Your task to perform on an android device: Show me recent news Image 0: 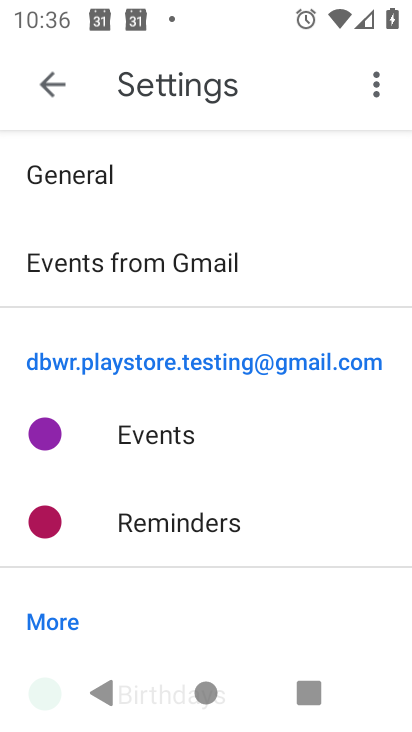
Step 0: press home button
Your task to perform on an android device: Show me recent news Image 1: 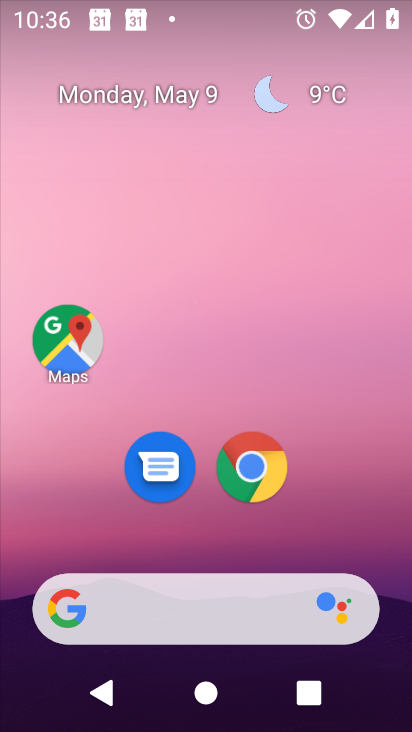
Step 1: drag from (13, 272) to (378, 396)
Your task to perform on an android device: Show me recent news Image 2: 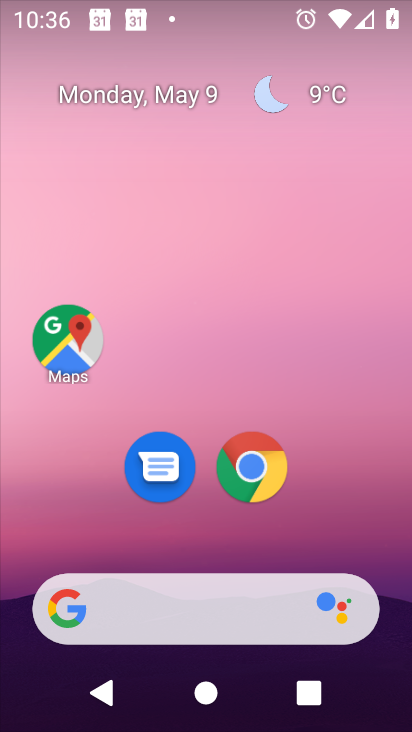
Step 2: drag from (2, 234) to (272, 720)
Your task to perform on an android device: Show me recent news Image 3: 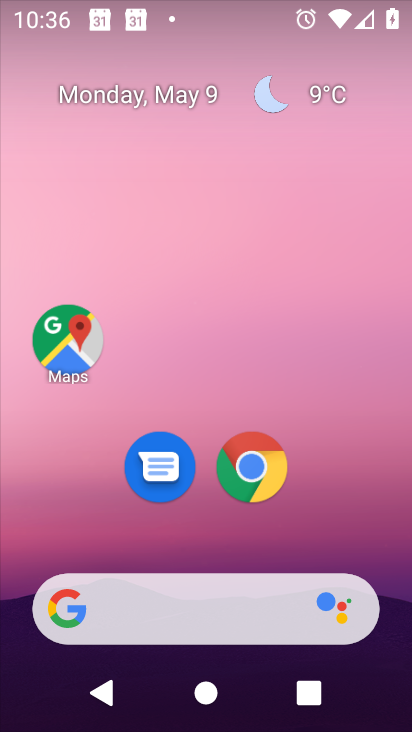
Step 3: drag from (9, 413) to (409, 453)
Your task to perform on an android device: Show me recent news Image 4: 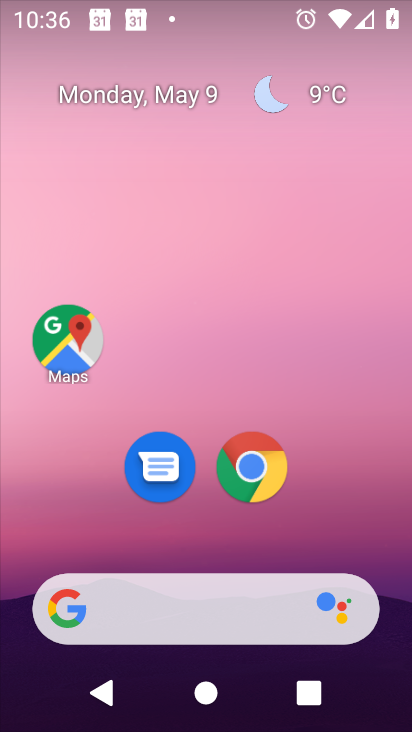
Step 4: drag from (31, 215) to (385, 359)
Your task to perform on an android device: Show me recent news Image 5: 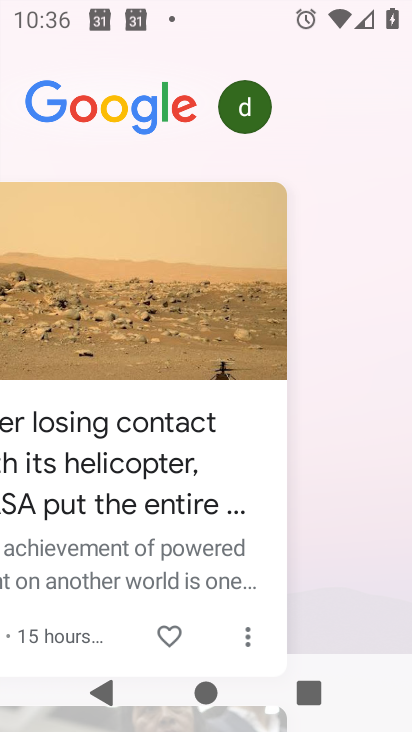
Step 5: drag from (68, 384) to (304, 390)
Your task to perform on an android device: Show me recent news Image 6: 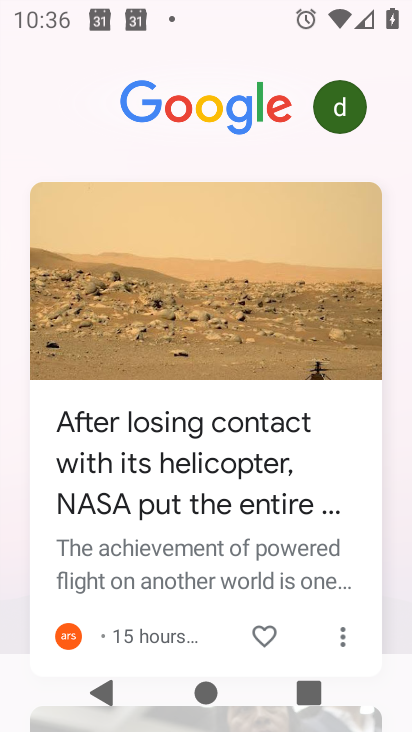
Step 6: drag from (195, 270) to (158, 715)
Your task to perform on an android device: Show me recent news Image 7: 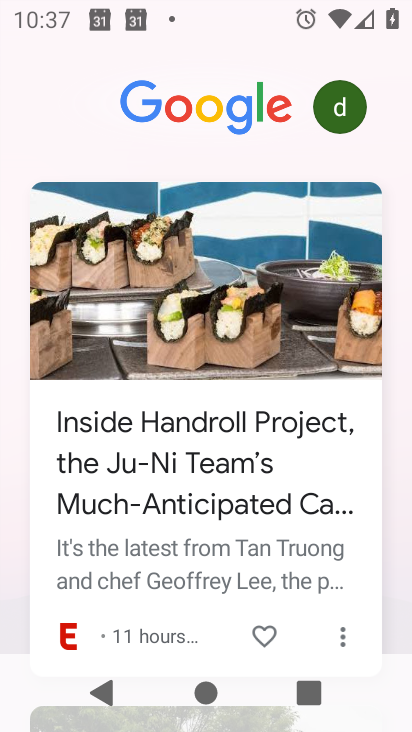
Step 7: drag from (184, 195) to (170, 721)
Your task to perform on an android device: Show me recent news Image 8: 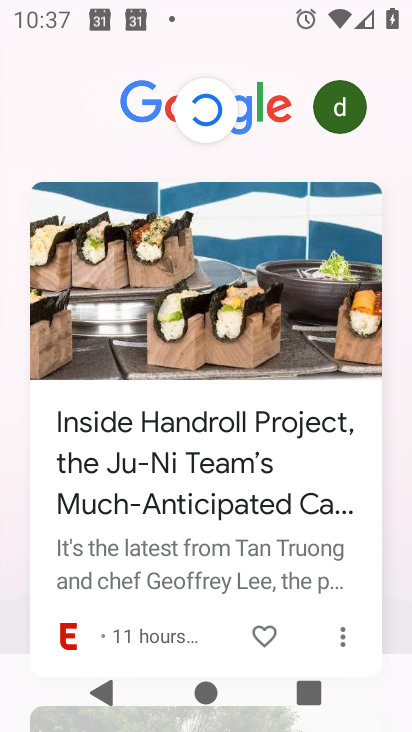
Step 8: click (194, 178)
Your task to perform on an android device: Show me recent news Image 9: 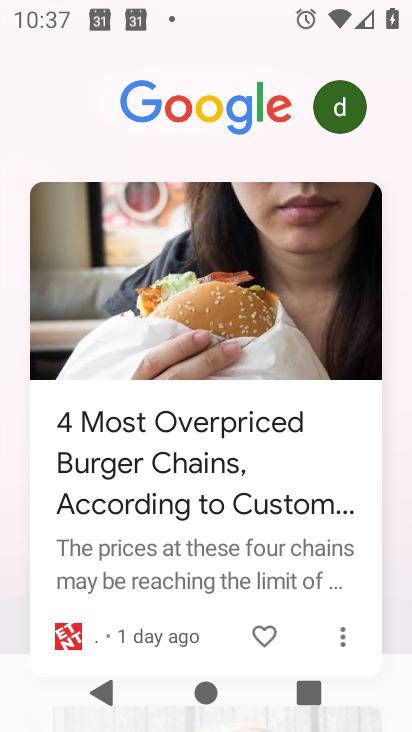
Step 9: drag from (218, 239) to (234, 712)
Your task to perform on an android device: Show me recent news Image 10: 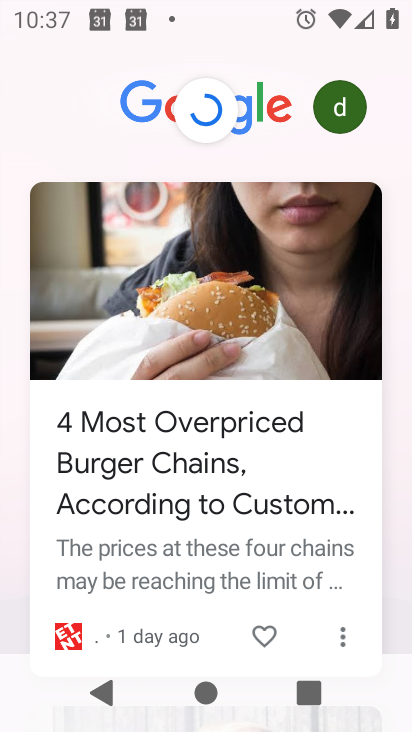
Step 10: click (193, 200)
Your task to perform on an android device: Show me recent news Image 11: 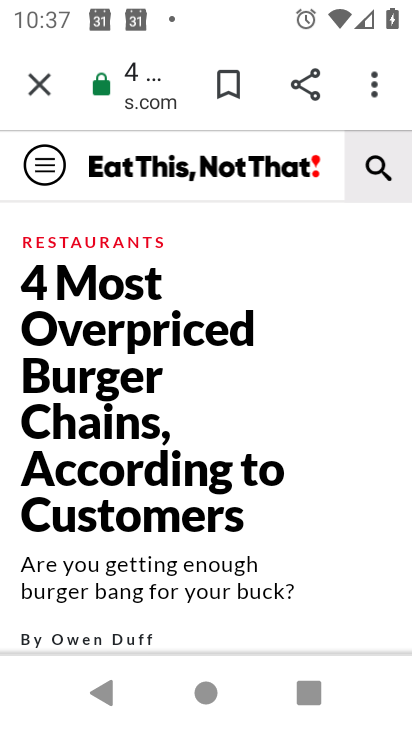
Step 11: task complete